Your task to perform on an android device: Open Amazon Image 0: 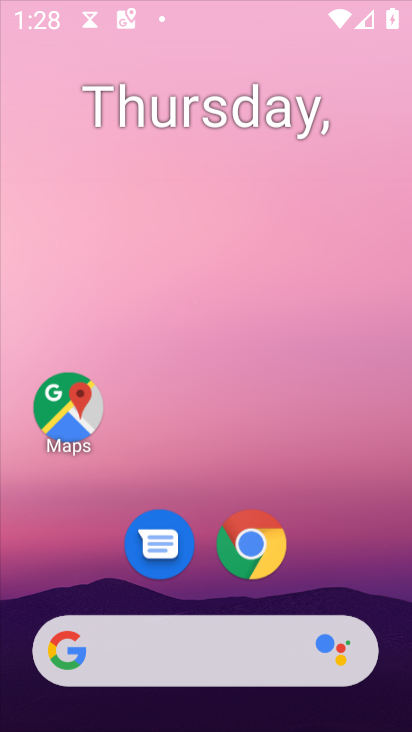
Step 0: click (257, 548)
Your task to perform on an android device: Open Amazon Image 1: 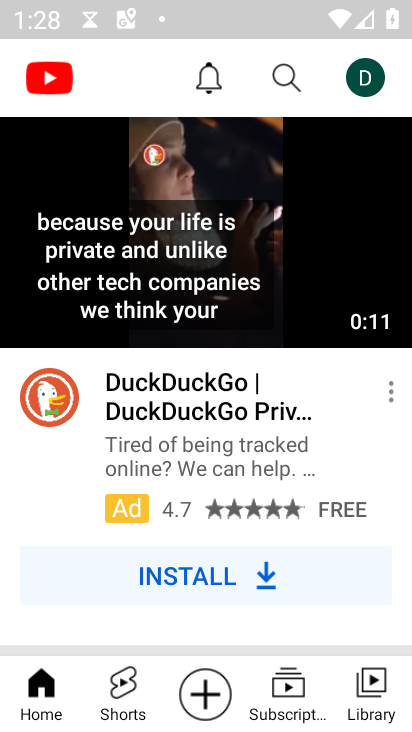
Step 1: press home button
Your task to perform on an android device: Open Amazon Image 2: 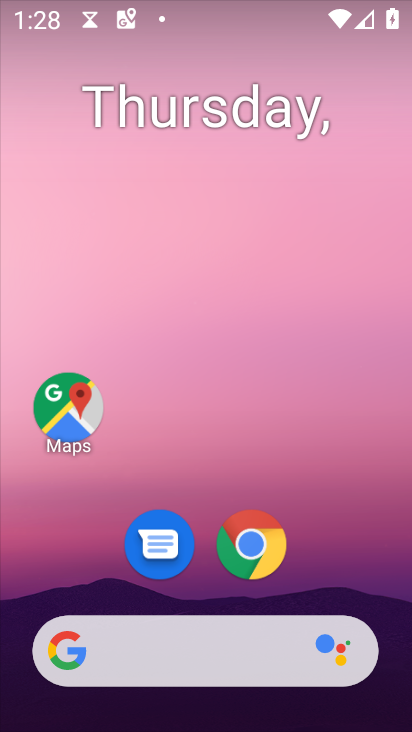
Step 2: click (249, 544)
Your task to perform on an android device: Open Amazon Image 3: 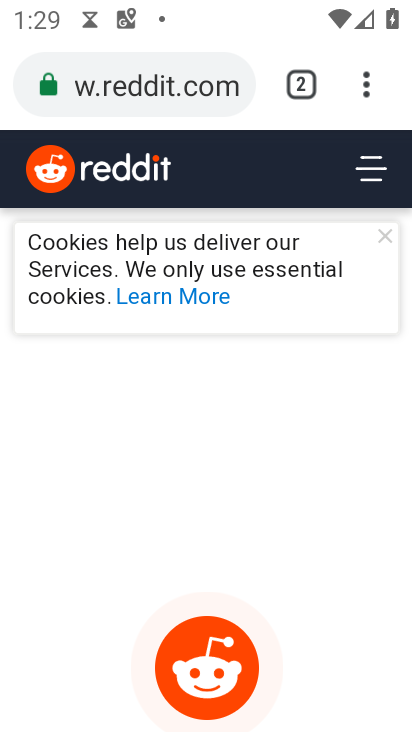
Step 3: click (366, 96)
Your task to perform on an android device: Open Amazon Image 4: 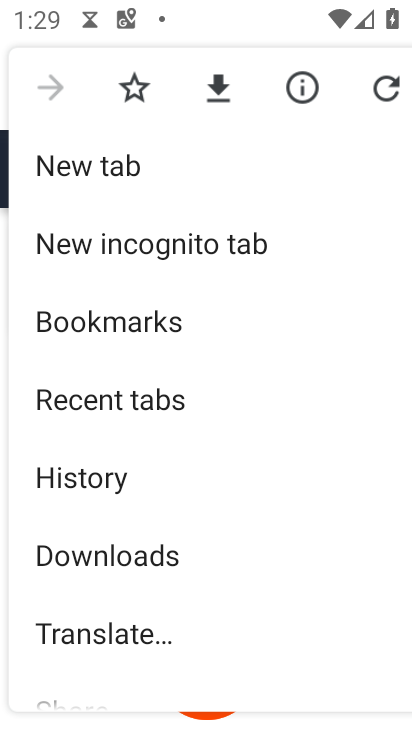
Step 4: click (96, 165)
Your task to perform on an android device: Open Amazon Image 5: 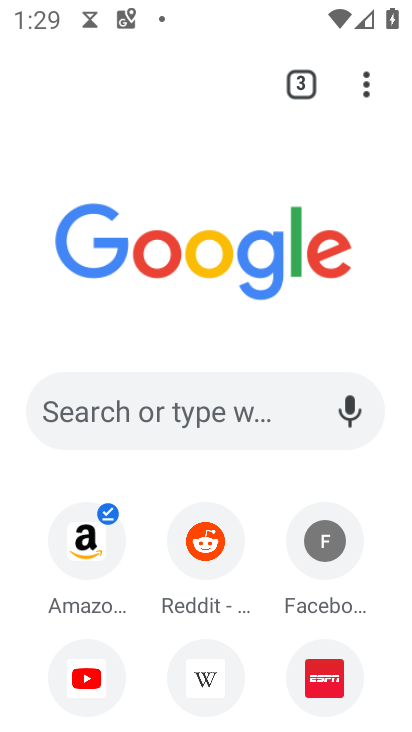
Step 5: click (95, 548)
Your task to perform on an android device: Open Amazon Image 6: 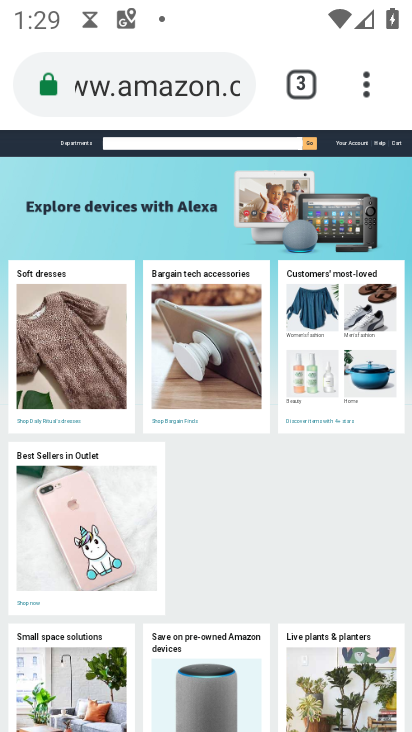
Step 6: task complete